Your task to perform on an android device: clear all cookies in the chrome app Image 0: 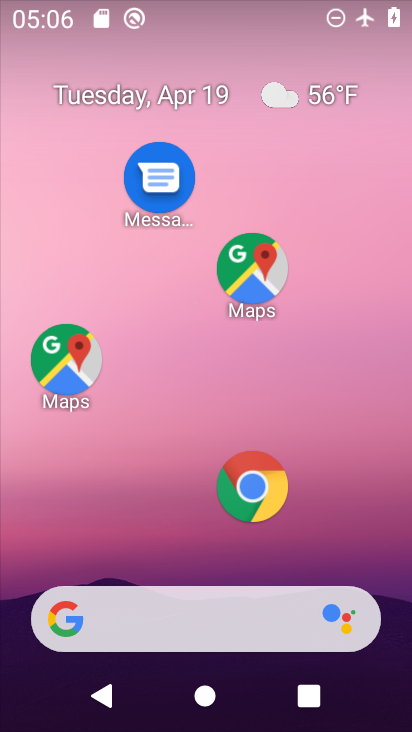
Step 0: click (287, 482)
Your task to perform on an android device: clear all cookies in the chrome app Image 1: 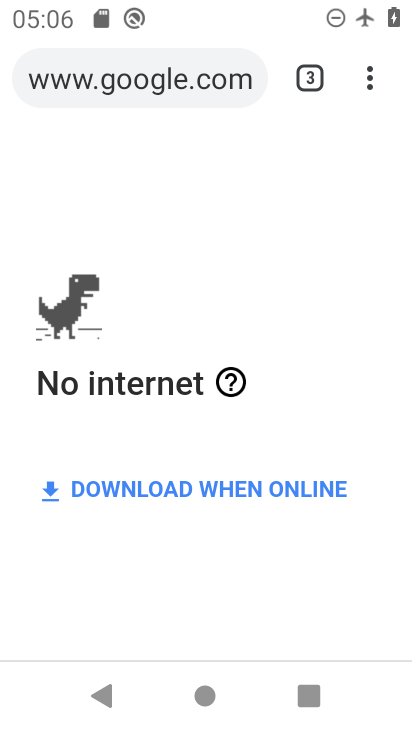
Step 1: click (368, 82)
Your task to perform on an android device: clear all cookies in the chrome app Image 2: 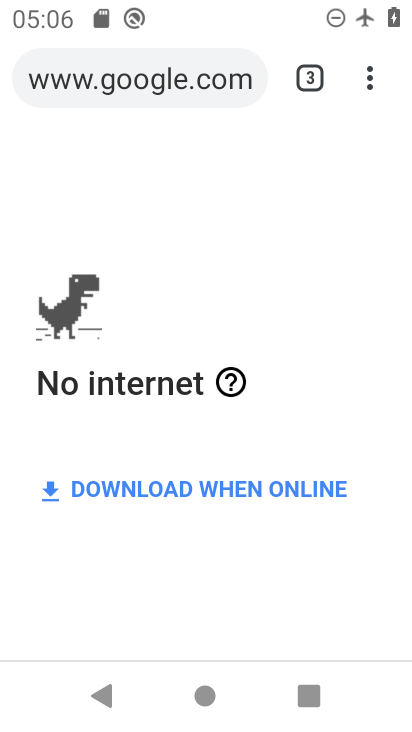
Step 2: click (360, 82)
Your task to perform on an android device: clear all cookies in the chrome app Image 3: 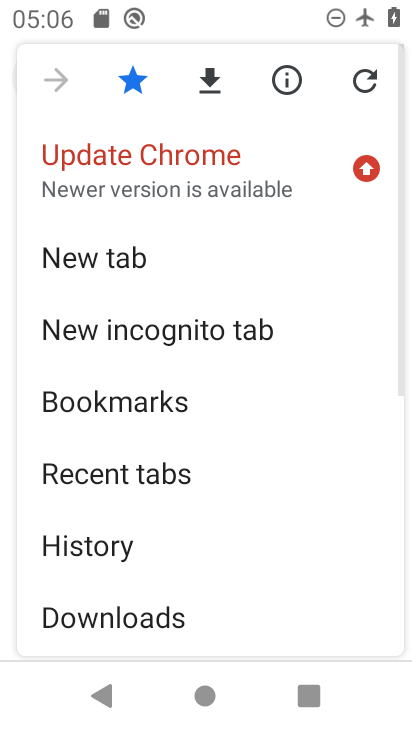
Step 3: drag from (173, 492) to (274, 171)
Your task to perform on an android device: clear all cookies in the chrome app Image 4: 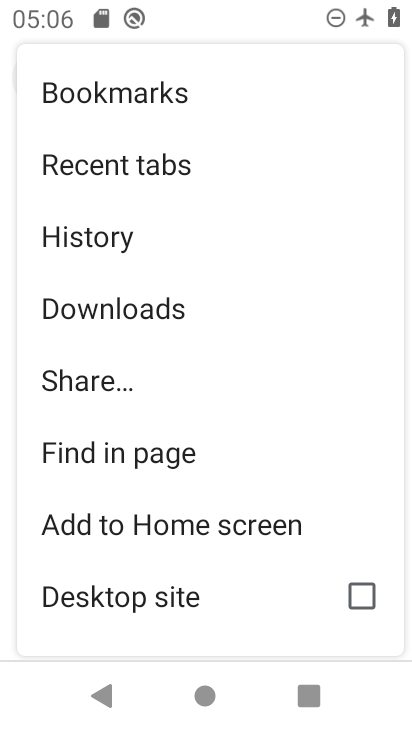
Step 4: drag from (172, 588) to (240, 236)
Your task to perform on an android device: clear all cookies in the chrome app Image 5: 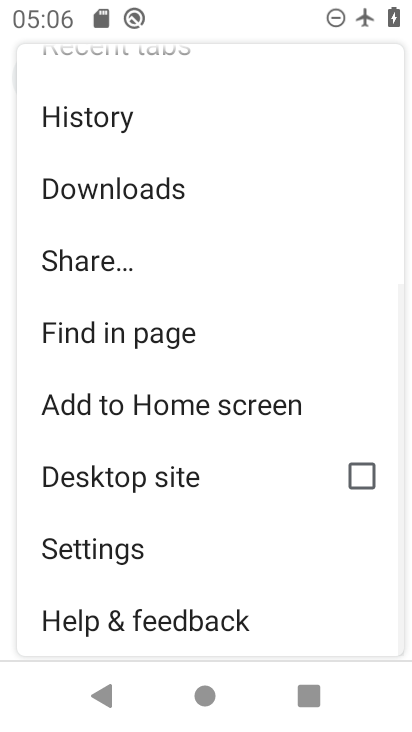
Step 5: click (169, 546)
Your task to perform on an android device: clear all cookies in the chrome app Image 6: 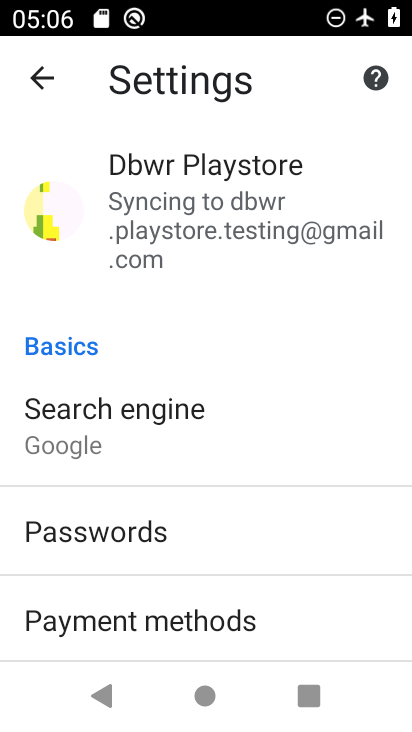
Step 6: drag from (157, 614) to (230, 332)
Your task to perform on an android device: clear all cookies in the chrome app Image 7: 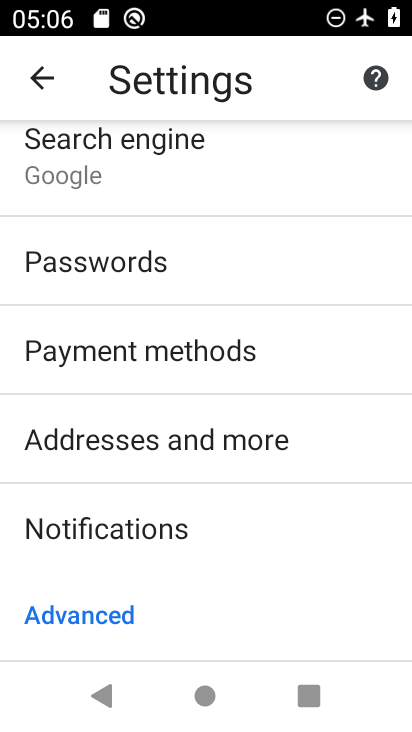
Step 7: drag from (185, 554) to (248, 267)
Your task to perform on an android device: clear all cookies in the chrome app Image 8: 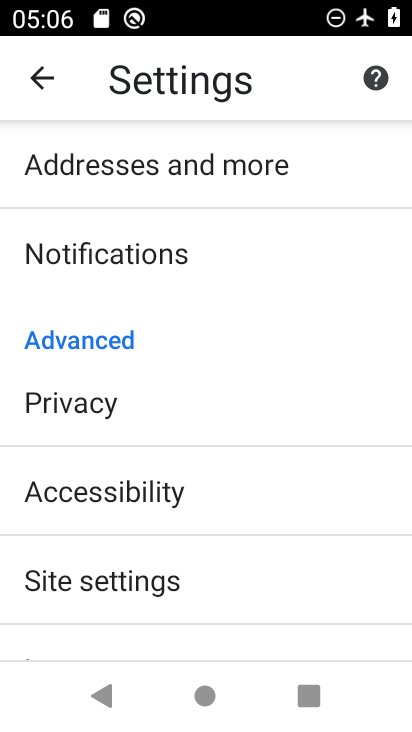
Step 8: click (160, 582)
Your task to perform on an android device: clear all cookies in the chrome app Image 9: 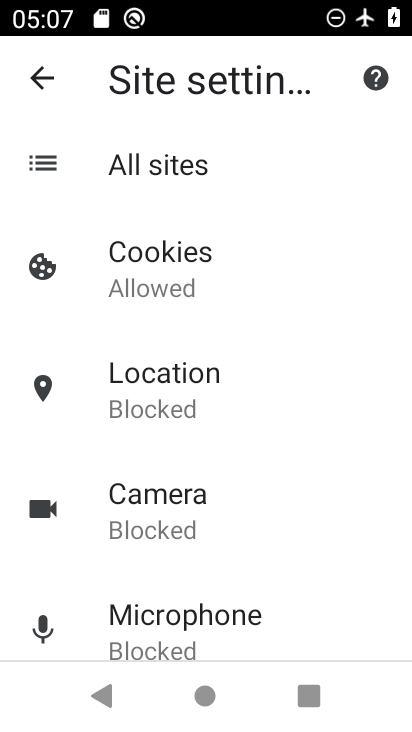
Step 9: click (176, 302)
Your task to perform on an android device: clear all cookies in the chrome app Image 10: 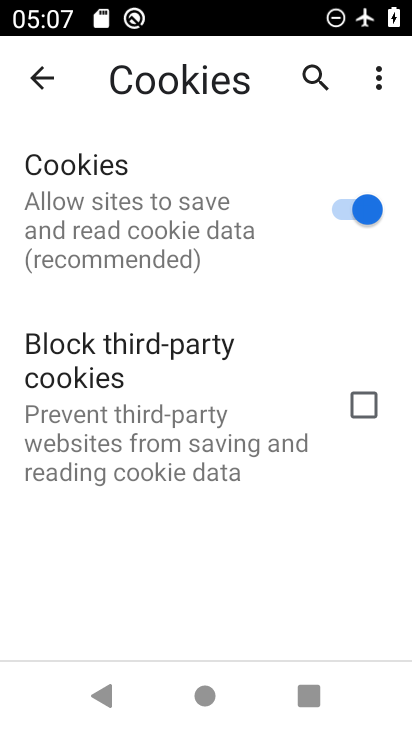
Step 10: click (388, 89)
Your task to perform on an android device: clear all cookies in the chrome app Image 11: 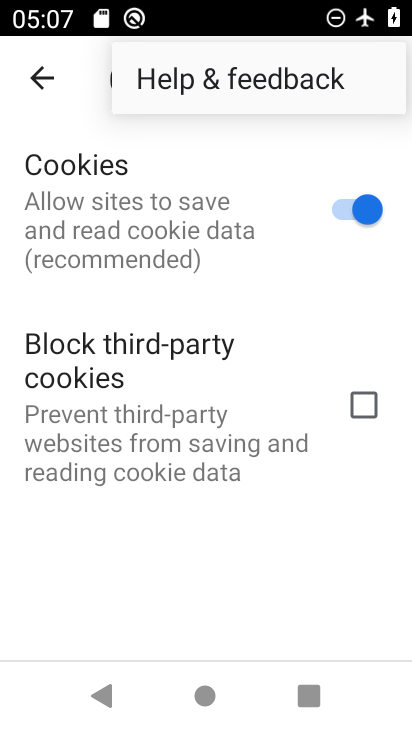
Step 11: task complete